Your task to perform on an android device: open sync settings in chrome Image 0: 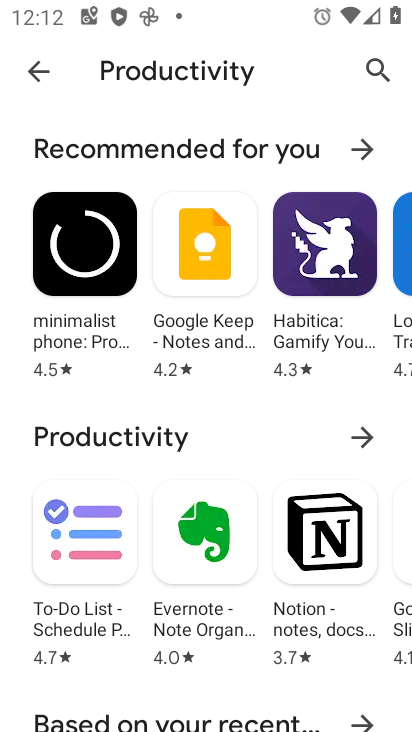
Step 0: press home button
Your task to perform on an android device: open sync settings in chrome Image 1: 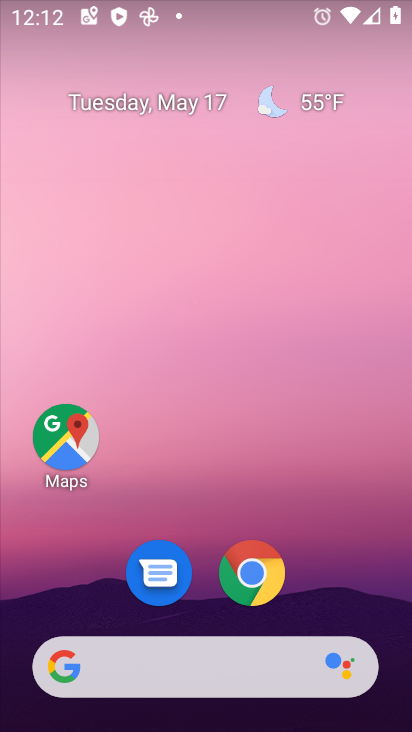
Step 1: click (252, 579)
Your task to perform on an android device: open sync settings in chrome Image 2: 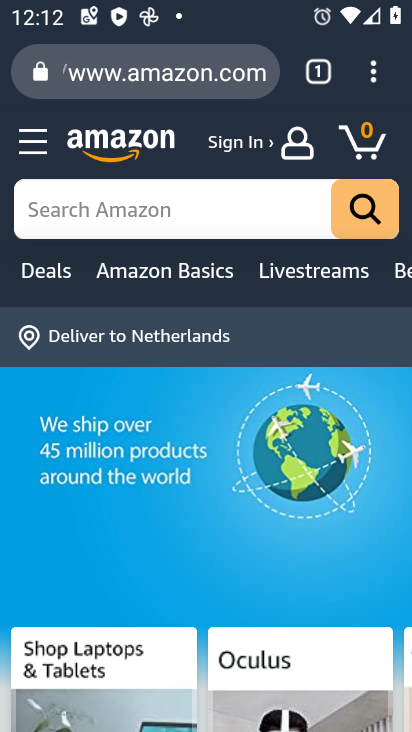
Step 2: click (371, 84)
Your task to perform on an android device: open sync settings in chrome Image 3: 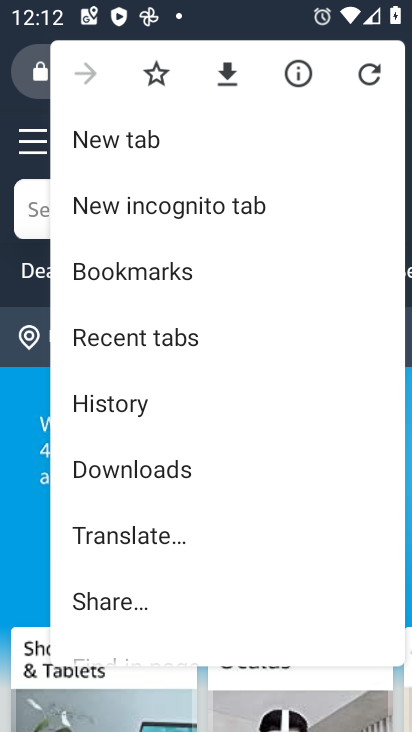
Step 3: drag from (227, 522) to (204, 281)
Your task to perform on an android device: open sync settings in chrome Image 4: 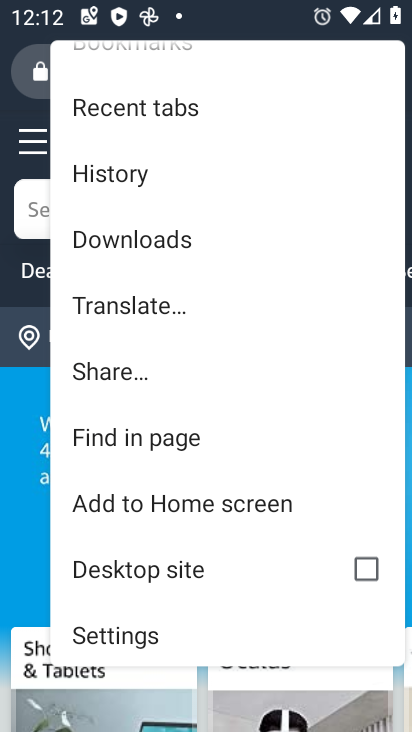
Step 4: click (170, 625)
Your task to perform on an android device: open sync settings in chrome Image 5: 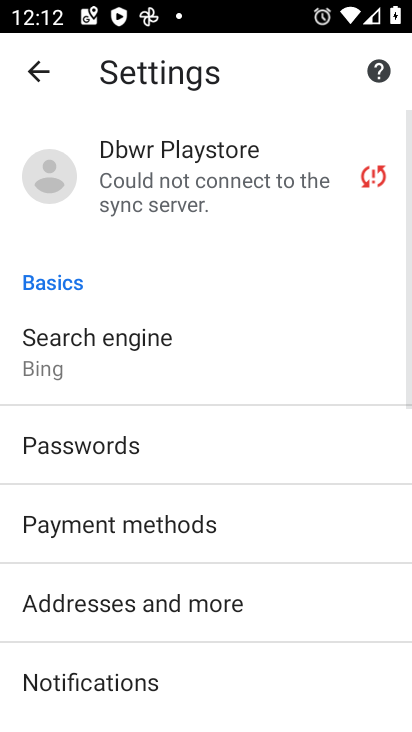
Step 5: click (150, 165)
Your task to perform on an android device: open sync settings in chrome Image 6: 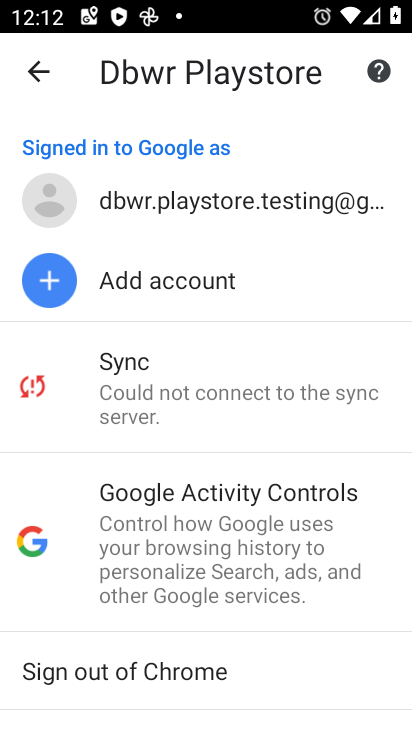
Step 6: click (160, 374)
Your task to perform on an android device: open sync settings in chrome Image 7: 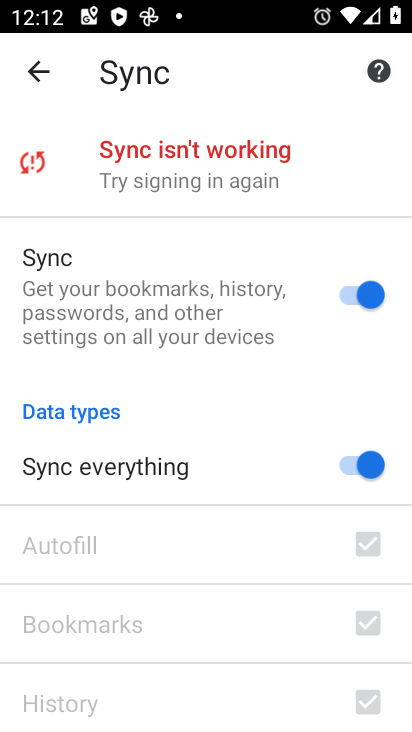
Step 7: task complete